Your task to perform on an android device: change the clock display to show seconds Image 0: 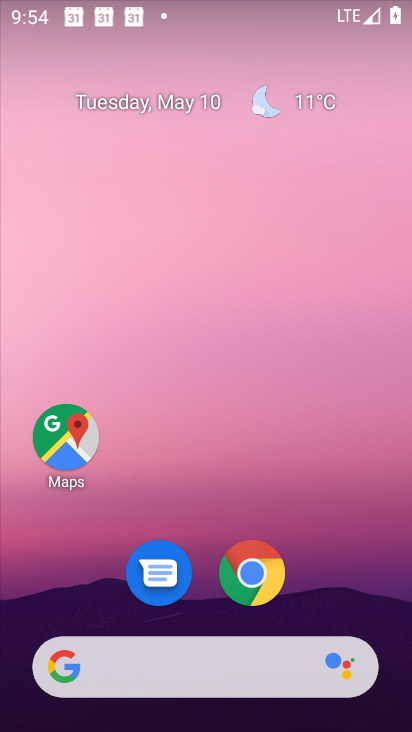
Step 0: drag from (351, 576) to (323, 142)
Your task to perform on an android device: change the clock display to show seconds Image 1: 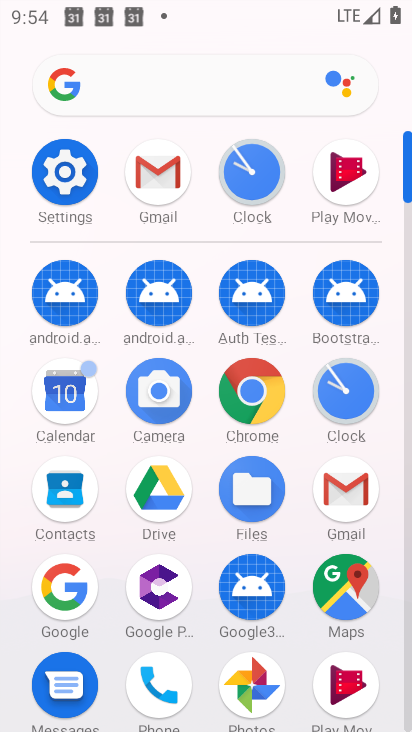
Step 1: click (252, 194)
Your task to perform on an android device: change the clock display to show seconds Image 2: 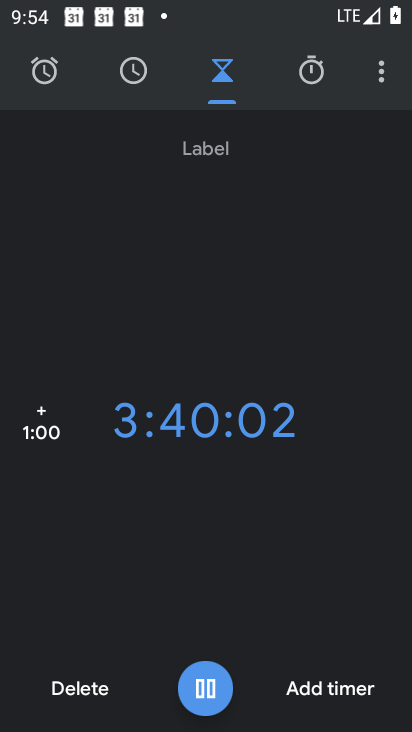
Step 2: click (383, 88)
Your task to perform on an android device: change the clock display to show seconds Image 3: 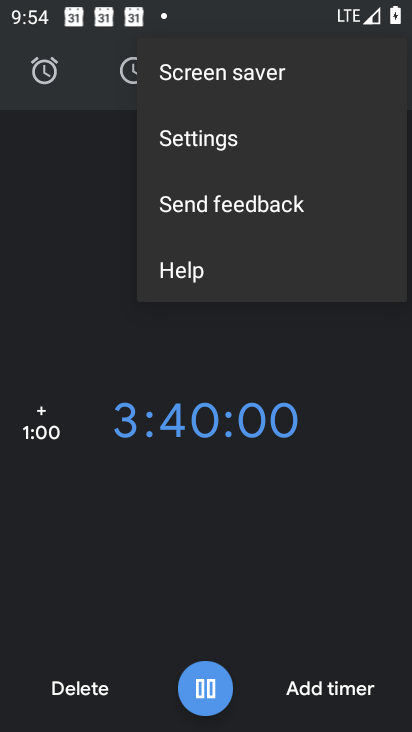
Step 3: click (293, 137)
Your task to perform on an android device: change the clock display to show seconds Image 4: 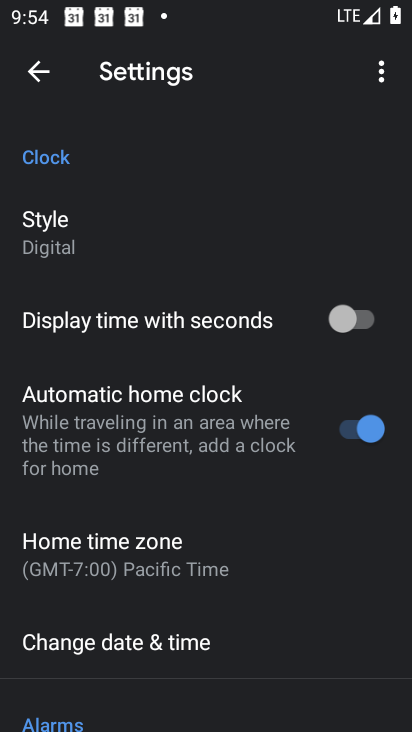
Step 4: click (363, 314)
Your task to perform on an android device: change the clock display to show seconds Image 5: 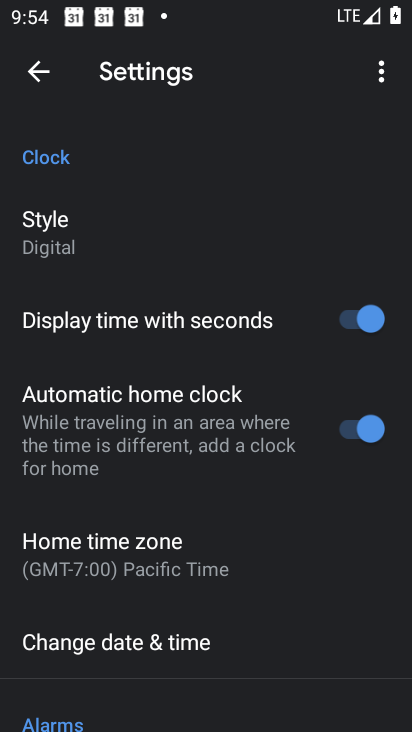
Step 5: task complete